Your task to perform on an android device: move a message to another label in the gmail app Image 0: 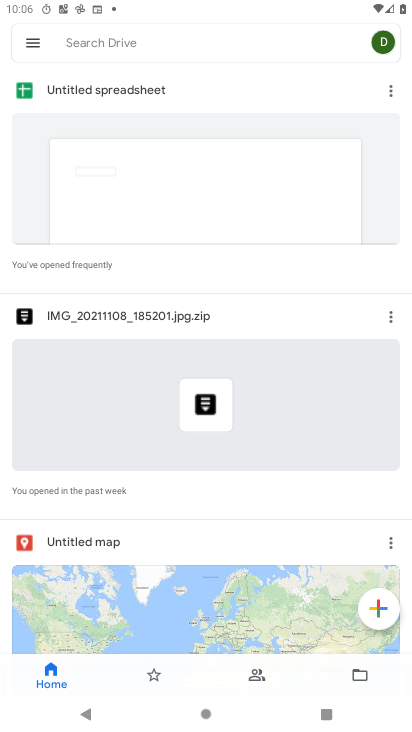
Step 0: press home button
Your task to perform on an android device: move a message to another label in the gmail app Image 1: 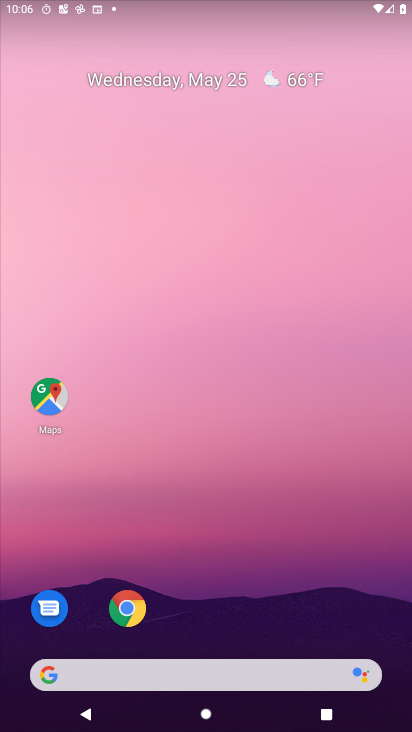
Step 1: drag from (232, 721) to (223, 142)
Your task to perform on an android device: move a message to another label in the gmail app Image 2: 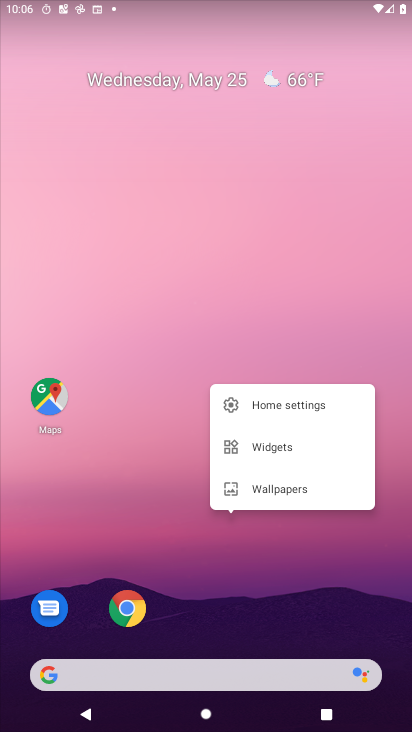
Step 2: click (132, 408)
Your task to perform on an android device: move a message to another label in the gmail app Image 3: 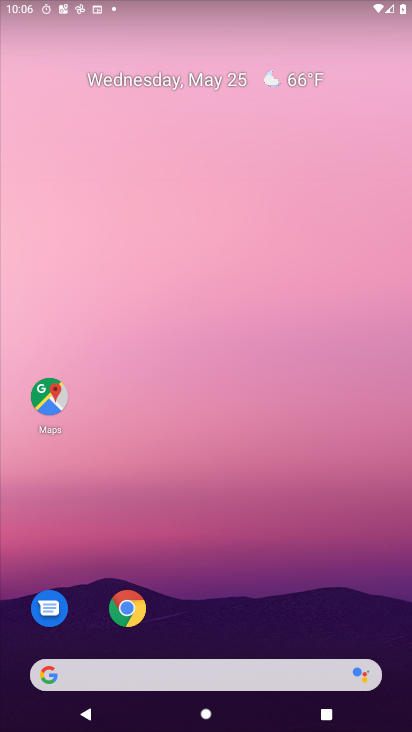
Step 3: drag from (219, 728) to (221, 47)
Your task to perform on an android device: move a message to another label in the gmail app Image 4: 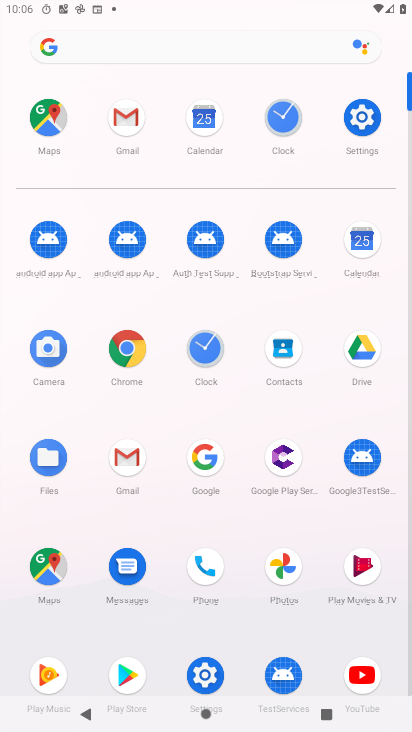
Step 4: click (129, 456)
Your task to perform on an android device: move a message to another label in the gmail app Image 5: 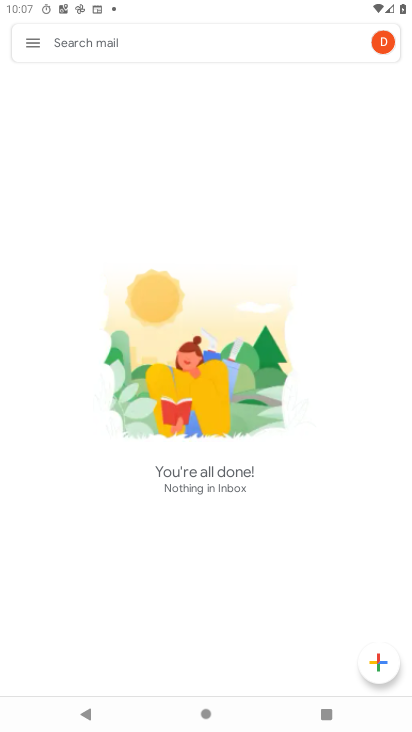
Step 5: task complete